Your task to perform on an android device: turn off notifications in google photos Image 0: 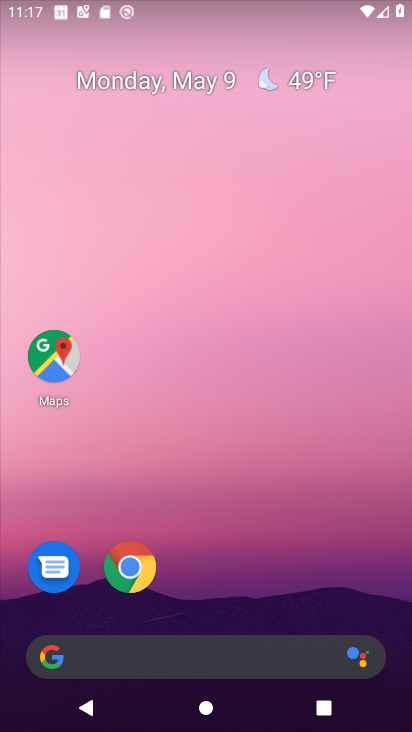
Step 0: drag from (212, 629) to (219, 185)
Your task to perform on an android device: turn off notifications in google photos Image 1: 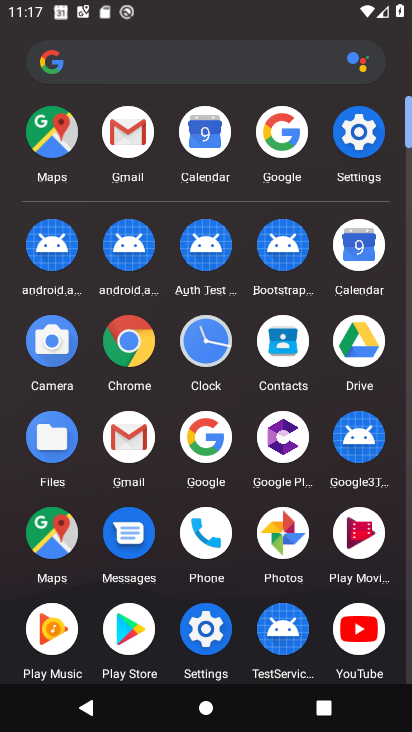
Step 1: click (291, 549)
Your task to perform on an android device: turn off notifications in google photos Image 2: 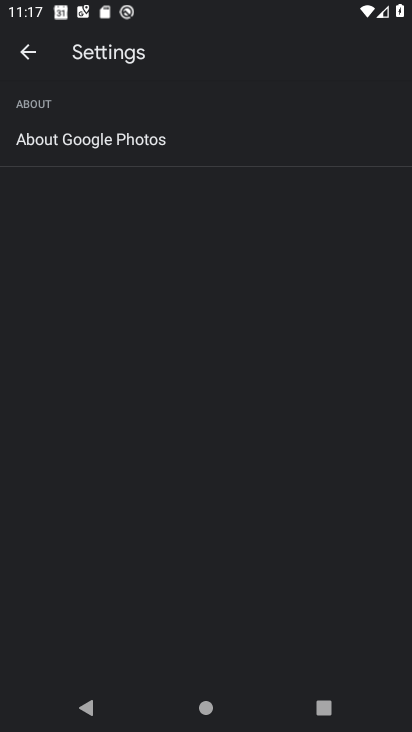
Step 2: click (29, 64)
Your task to perform on an android device: turn off notifications in google photos Image 3: 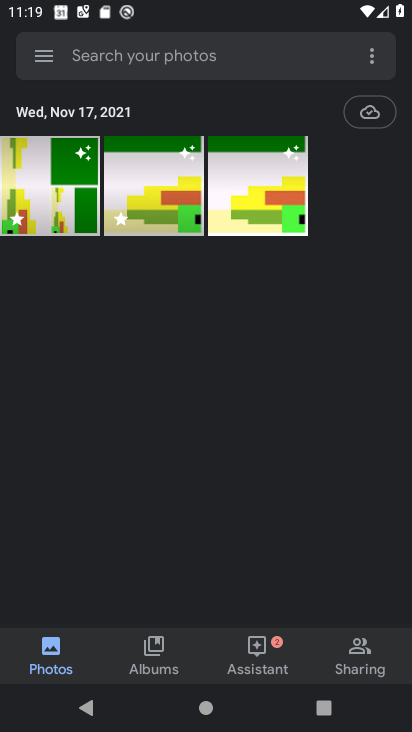
Step 3: click (48, 58)
Your task to perform on an android device: turn off notifications in google photos Image 4: 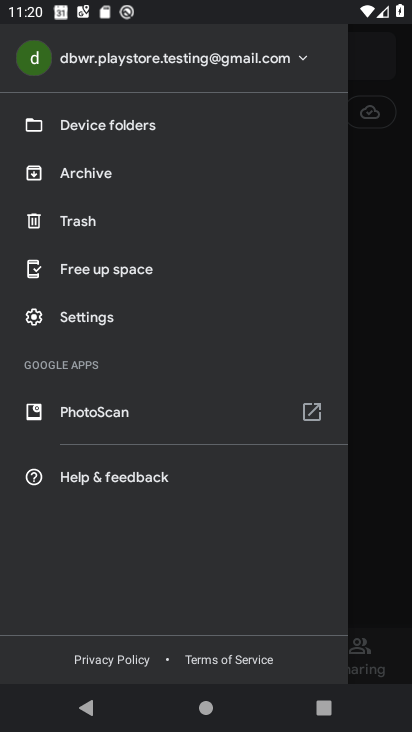
Step 4: click (92, 327)
Your task to perform on an android device: turn off notifications in google photos Image 5: 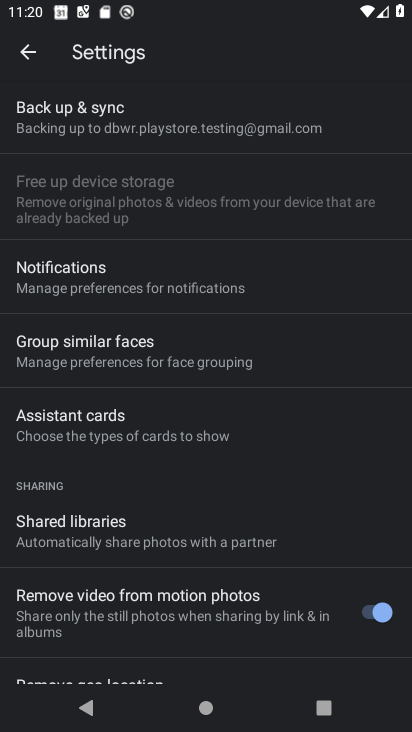
Step 5: click (100, 282)
Your task to perform on an android device: turn off notifications in google photos Image 6: 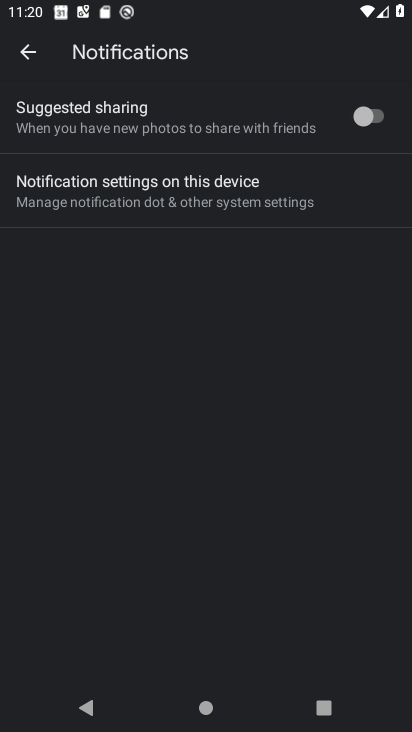
Step 6: click (120, 200)
Your task to perform on an android device: turn off notifications in google photos Image 7: 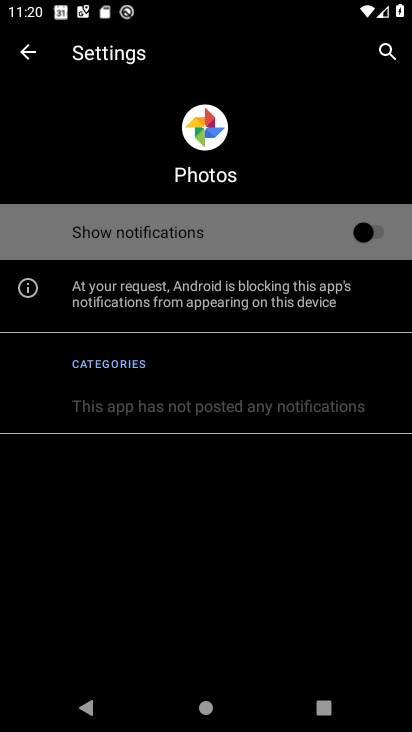
Step 7: task complete